Your task to perform on an android device: Go to Amazon Image 0: 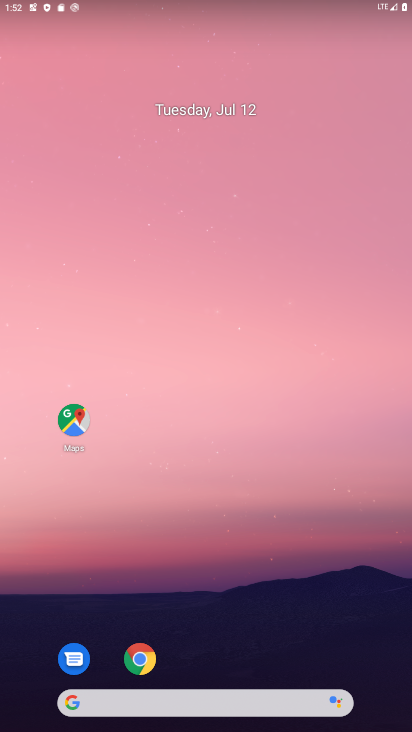
Step 0: click (144, 656)
Your task to perform on an android device: Go to Amazon Image 1: 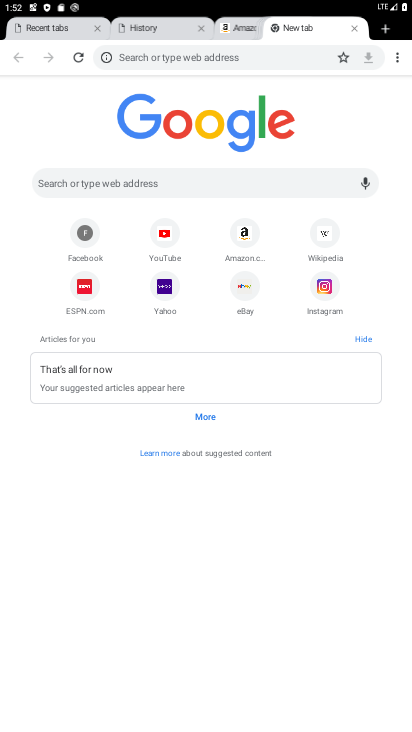
Step 1: click (244, 242)
Your task to perform on an android device: Go to Amazon Image 2: 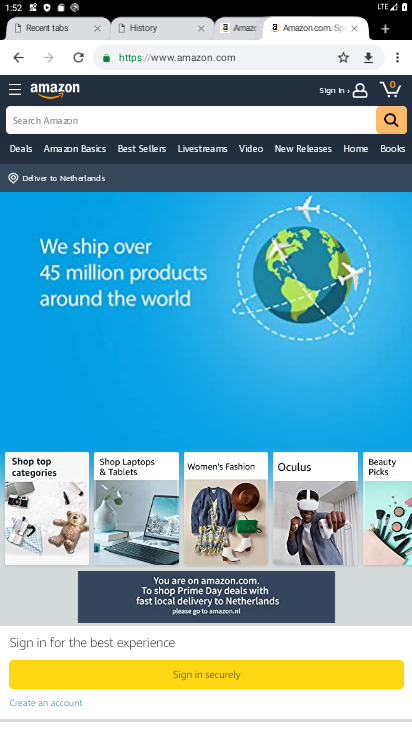
Step 2: task complete